Your task to perform on an android device: allow notifications from all sites in the chrome app Image 0: 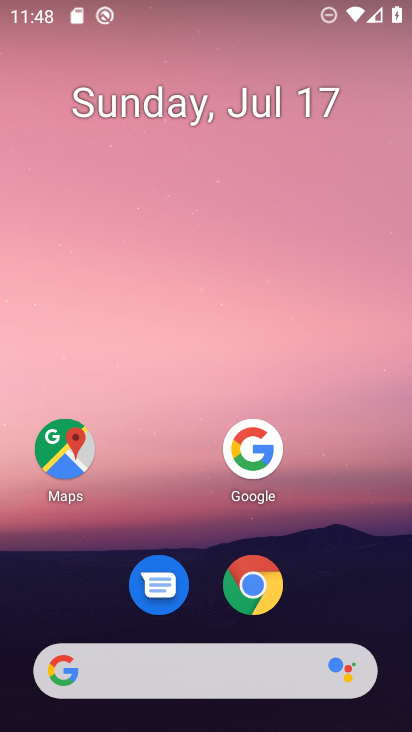
Step 0: press home button
Your task to perform on an android device: allow notifications from all sites in the chrome app Image 1: 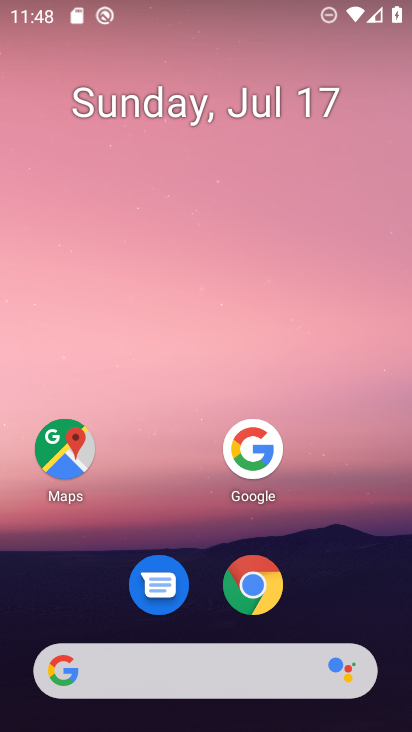
Step 1: click (258, 585)
Your task to perform on an android device: allow notifications from all sites in the chrome app Image 2: 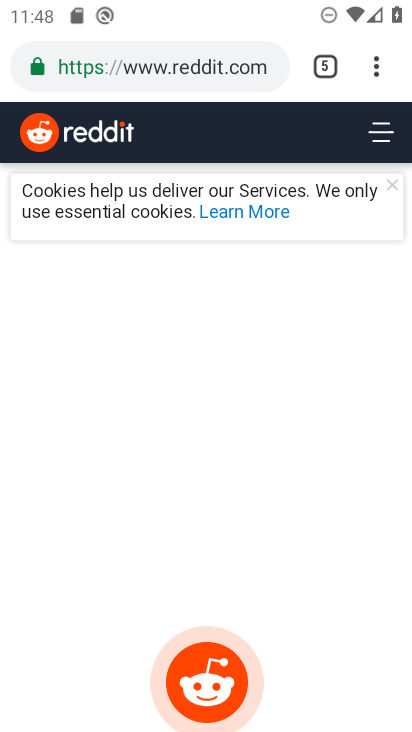
Step 2: drag from (372, 67) to (237, 594)
Your task to perform on an android device: allow notifications from all sites in the chrome app Image 3: 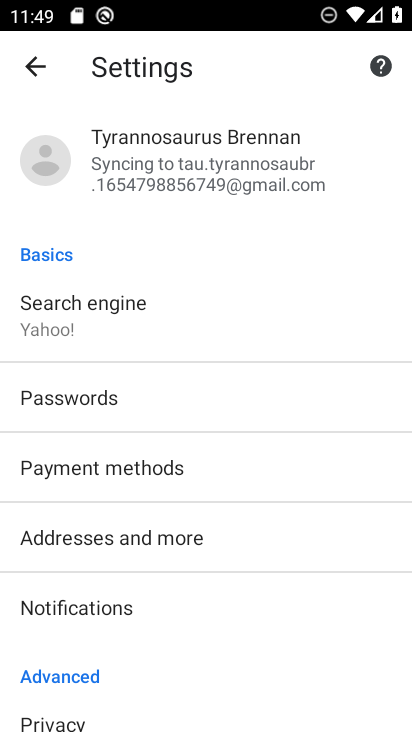
Step 3: drag from (226, 632) to (290, 40)
Your task to perform on an android device: allow notifications from all sites in the chrome app Image 4: 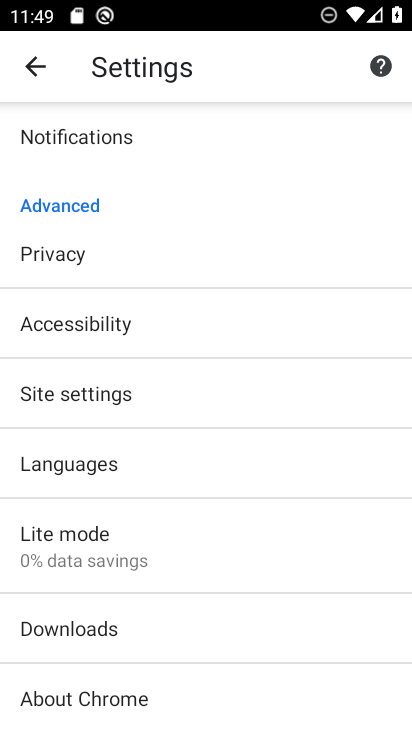
Step 4: click (92, 394)
Your task to perform on an android device: allow notifications from all sites in the chrome app Image 5: 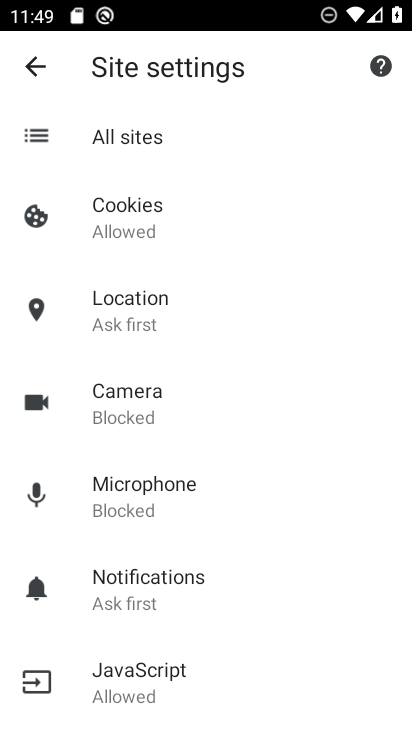
Step 5: click (177, 584)
Your task to perform on an android device: allow notifications from all sites in the chrome app Image 6: 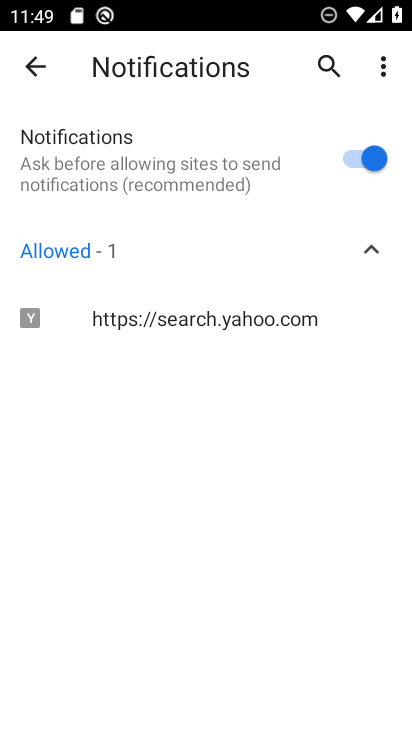
Step 6: task complete